Your task to perform on an android device: Go to calendar. Show me events next week Image 0: 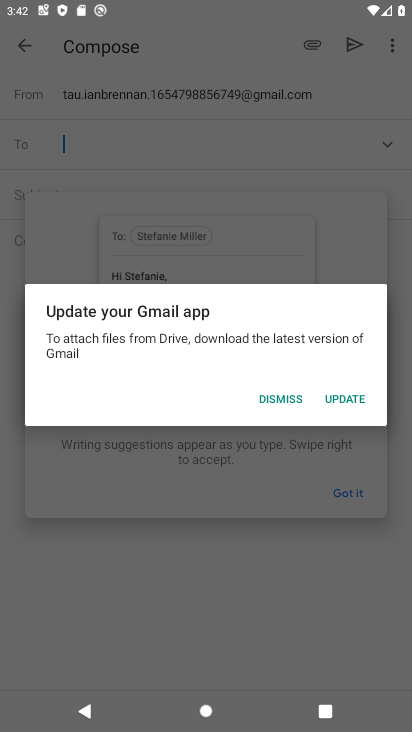
Step 0: press home button
Your task to perform on an android device: Go to calendar. Show me events next week Image 1: 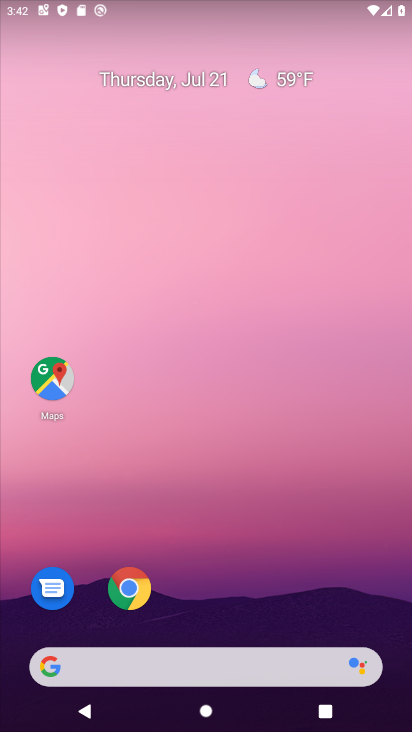
Step 1: drag from (242, 624) to (276, 154)
Your task to perform on an android device: Go to calendar. Show me events next week Image 2: 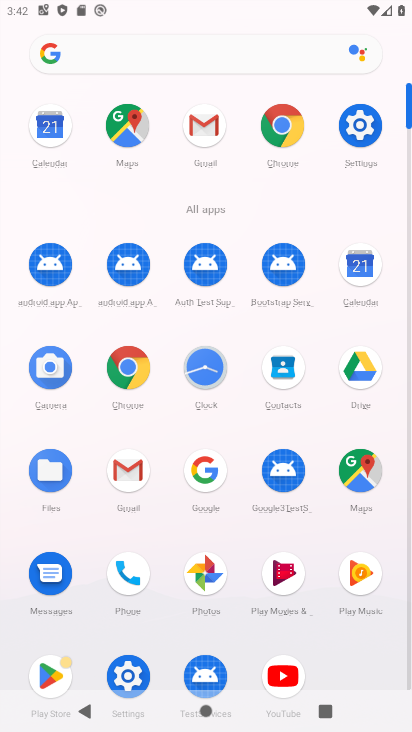
Step 2: click (363, 283)
Your task to perform on an android device: Go to calendar. Show me events next week Image 3: 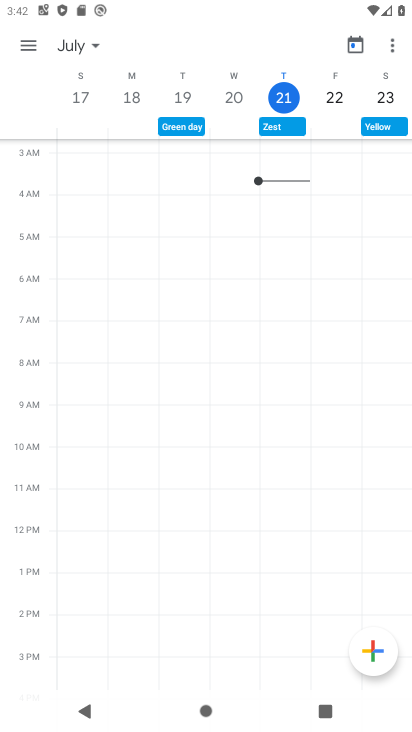
Step 3: click (27, 44)
Your task to perform on an android device: Go to calendar. Show me events next week Image 4: 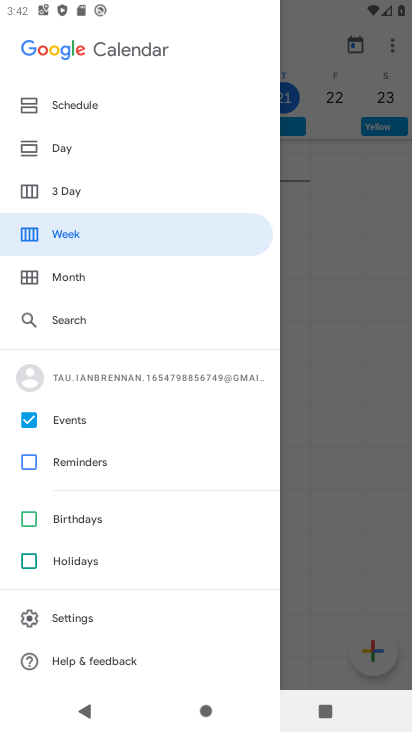
Step 4: click (380, 339)
Your task to perform on an android device: Go to calendar. Show me events next week Image 5: 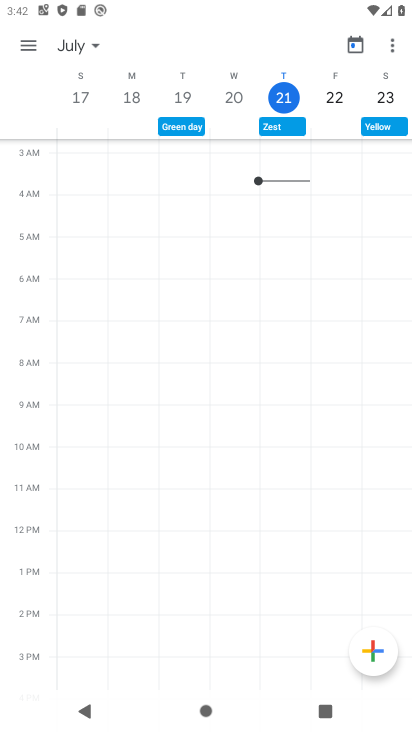
Step 5: task complete